Your task to perform on an android device: visit the assistant section in the google photos Image 0: 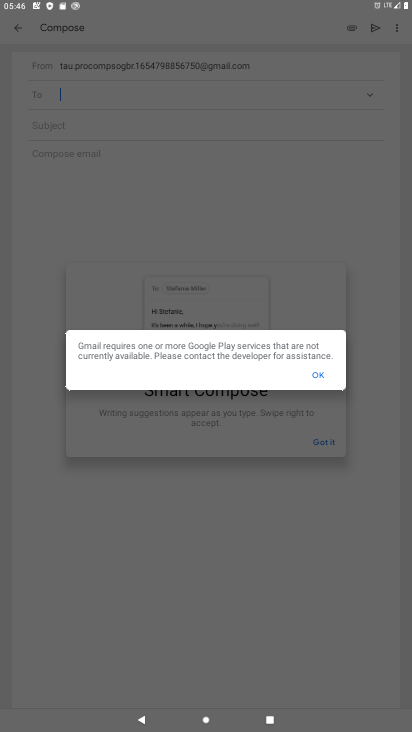
Step 0: press home button
Your task to perform on an android device: visit the assistant section in the google photos Image 1: 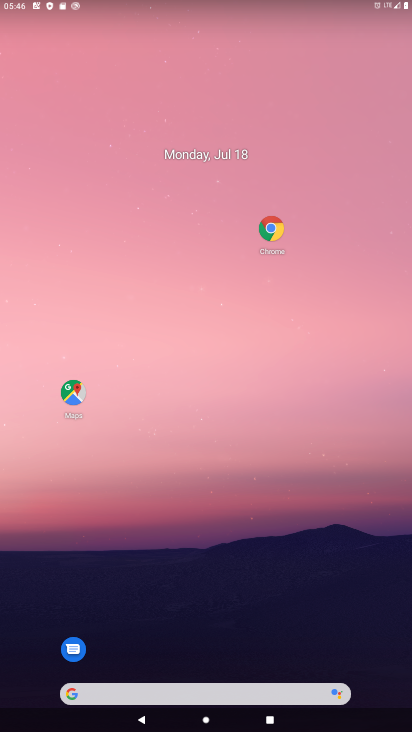
Step 1: drag from (190, 652) to (278, 126)
Your task to perform on an android device: visit the assistant section in the google photos Image 2: 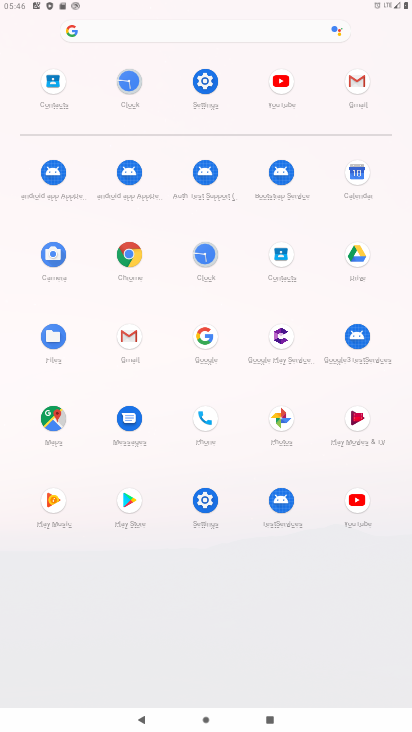
Step 2: click (269, 429)
Your task to perform on an android device: visit the assistant section in the google photos Image 3: 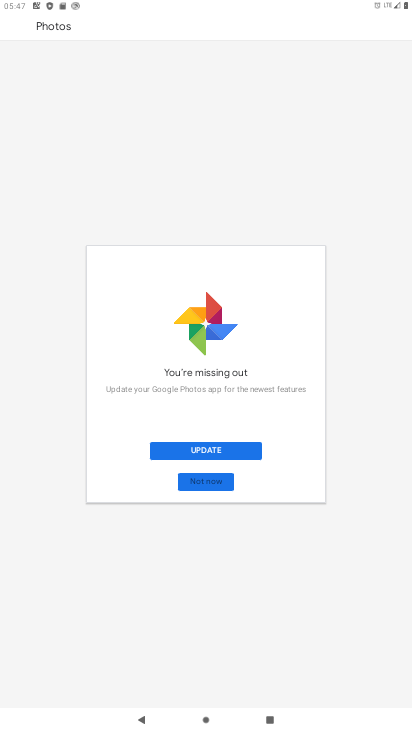
Step 3: click (187, 479)
Your task to perform on an android device: visit the assistant section in the google photos Image 4: 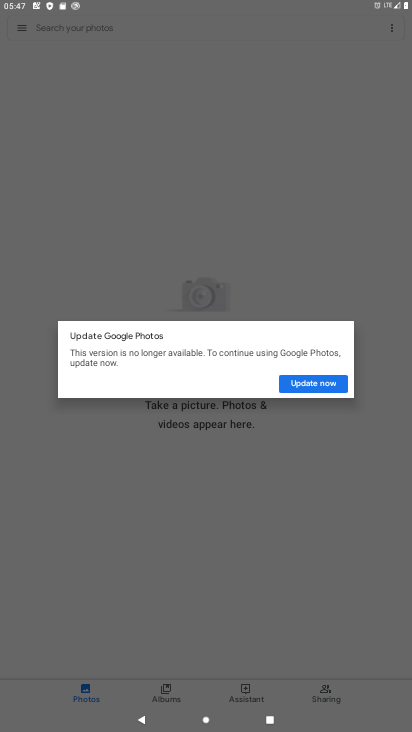
Step 4: click (304, 390)
Your task to perform on an android device: visit the assistant section in the google photos Image 5: 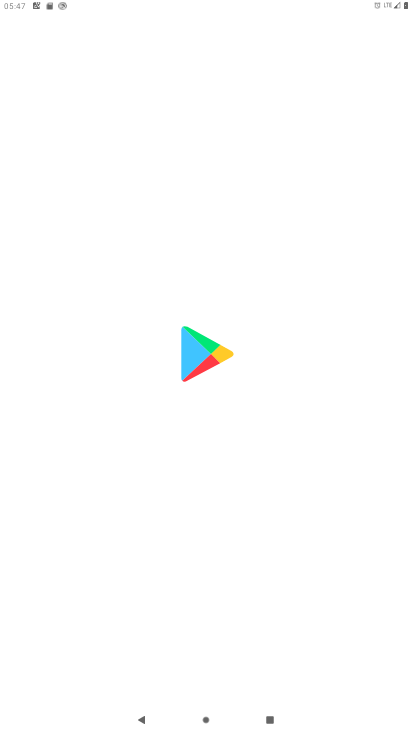
Step 5: click (321, 379)
Your task to perform on an android device: visit the assistant section in the google photos Image 6: 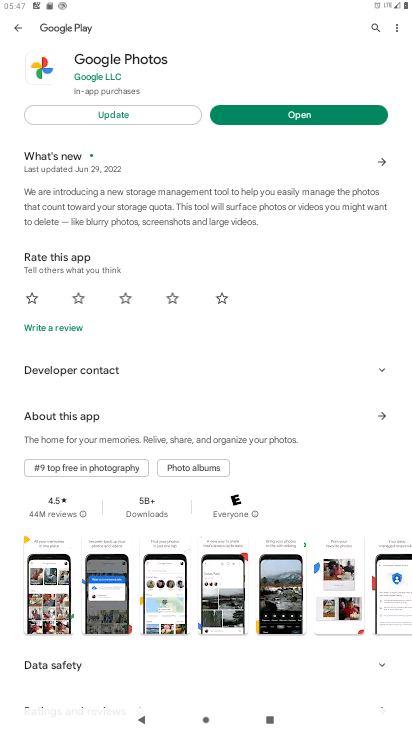
Step 6: click (321, 116)
Your task to perform on an android device: visit the assistant section in the google photos Image 7: 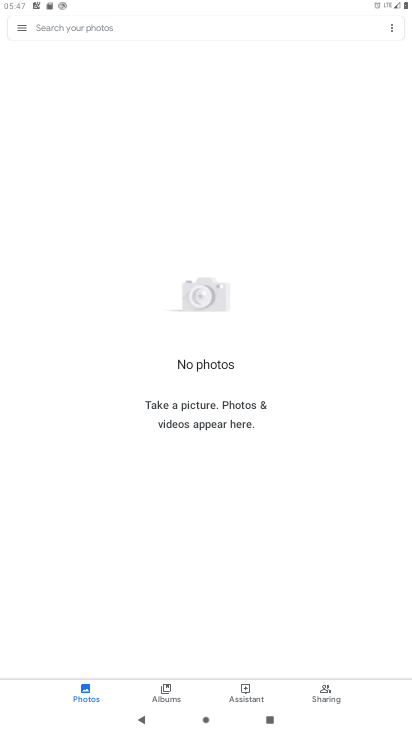
Step 7: click (243, 700)
Your task to perform on an android device: visit the assistant section in the google photos Image 8: 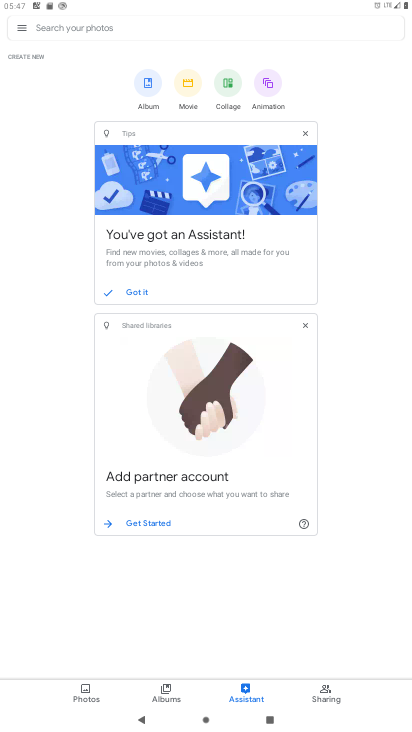
Step 8: task complete